Your task to perform on an android device: turn pop-ups on in chrome Image 0: 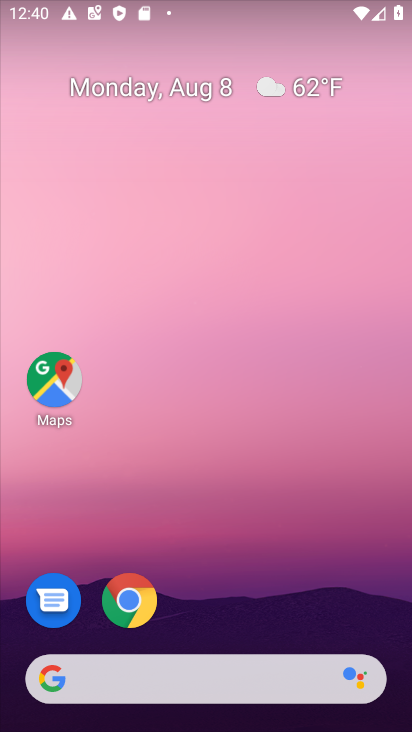
Step 0: click (124, 607)
Your task to perform on an android device: turn pop-ups on in chrome Image 1: 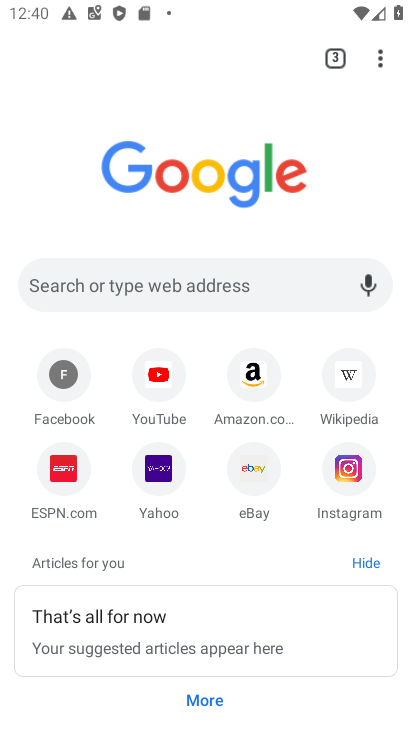
Step 1: click (382, 49)
Your task to perform on an android device: turn pop-ups on in chrome Image 2: 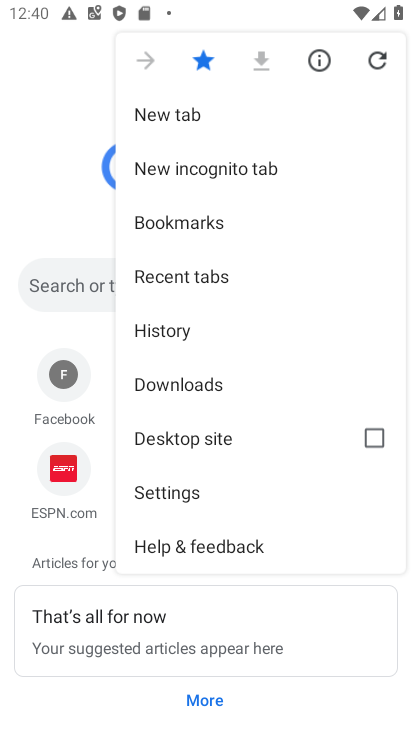
Step 2: click (187, 490)
Your task to perform on an android device: turn pop-ups on in chrome Image 3: 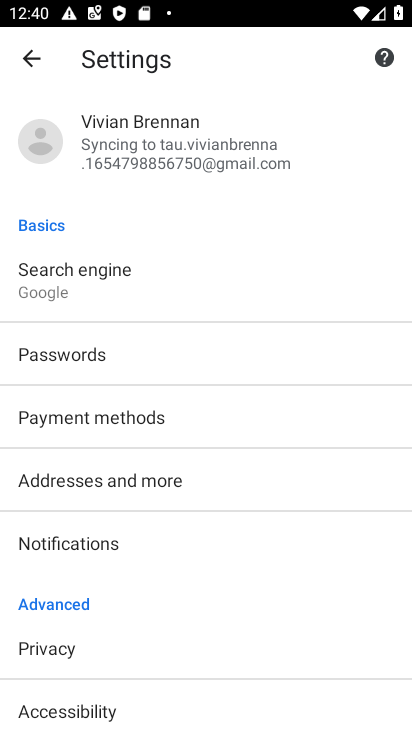
Step 3: drag from (187, 603) to (199, 297)
Your task to perform on an android device: turn pop-ups on in chrome Image 4: 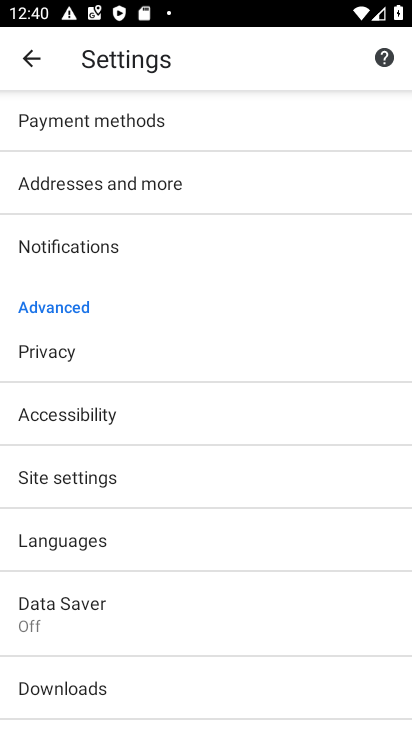
Step 4: click (140, 470)
Your task to perform on an android device: turn pop-ups on in chrome Image 5: 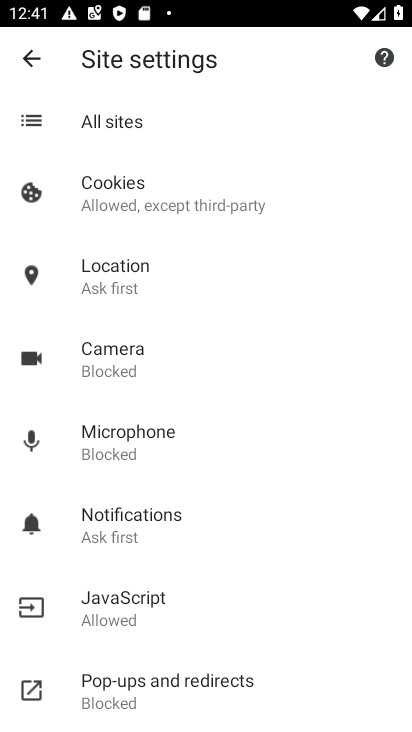
Step 5: click (189, 688)
Your task to perform on an android device: turn pop-ups on in chrome Image 6: 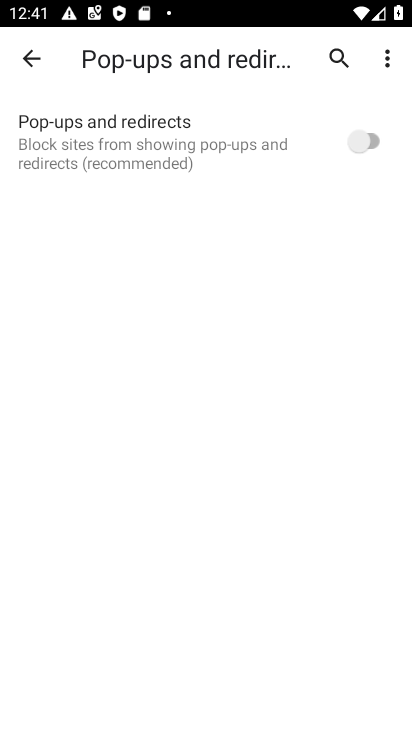
Step 6: click (378, 147)
Your task to perform on an android device: turn pop-ups on in chrome Image 7: 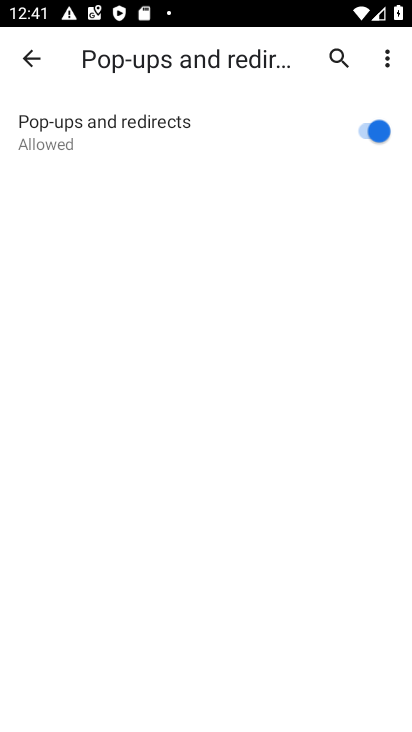
Step 7: task complete